Your task to perform on an android device: choose inbox layout in the gmail app Image 0: 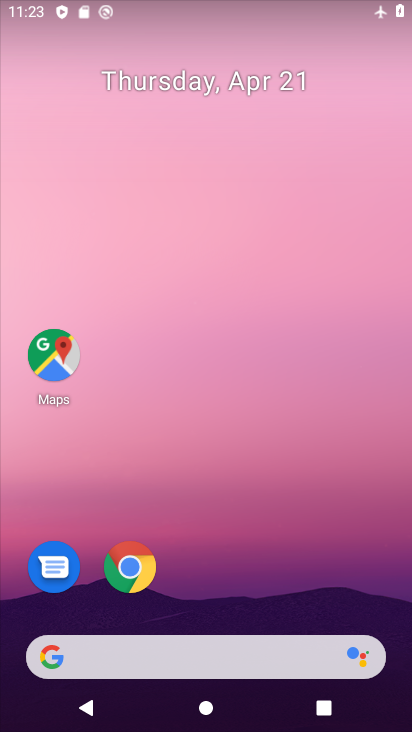
Step 0: drag from (385, 562) to (342, 144)
Your task to perform on an android device: choose inbox layout in the gmail app Image 1: 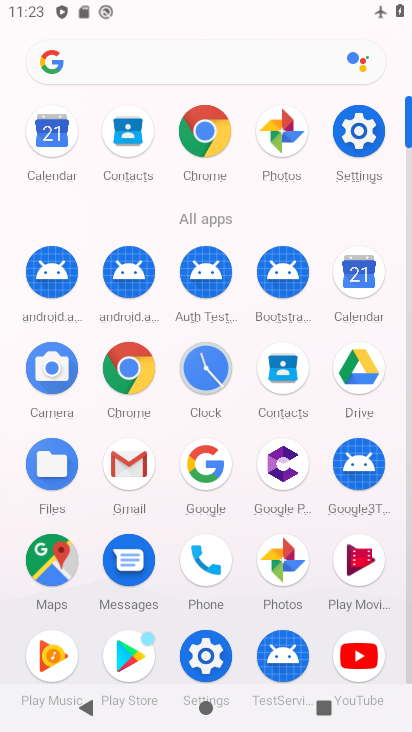
Step 1: click (131, 464)
Your task to perform on an android device: choose inbox layout in the gmail app Image 2: 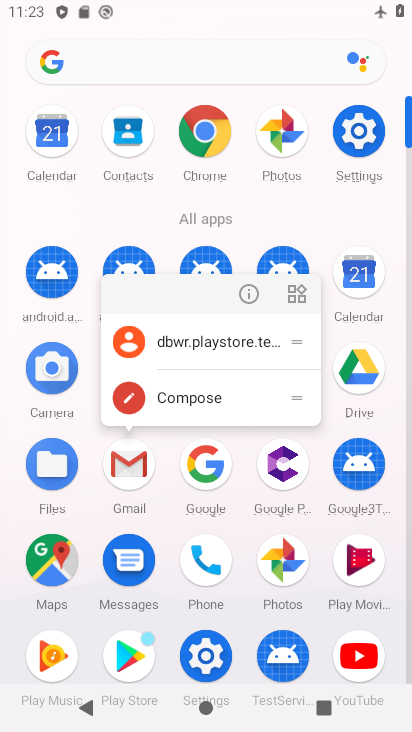
Step 2: click (134, 458)
Your task to perform on an android device: choose inbox layout in the gmail app Image 3: 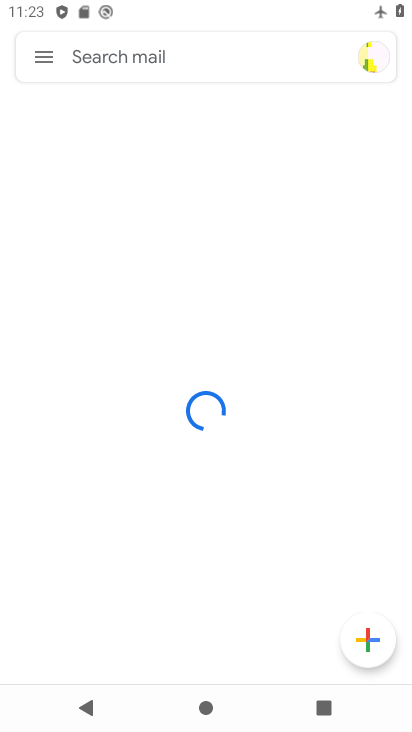
Step 3: click (52, 55)
Your task to perform on an android device: choose inbox layout in the gmail app Image 4: 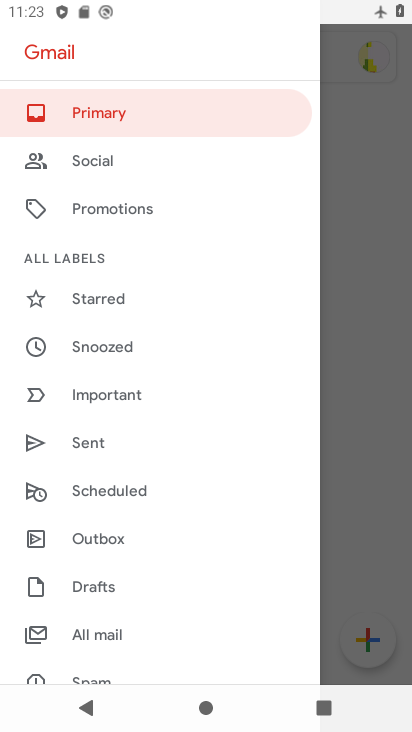
Step 4: drag from (167, 614) to (213, 118)
Your task to perform on an android device: choose inbox layout in the gmail app Image 5: 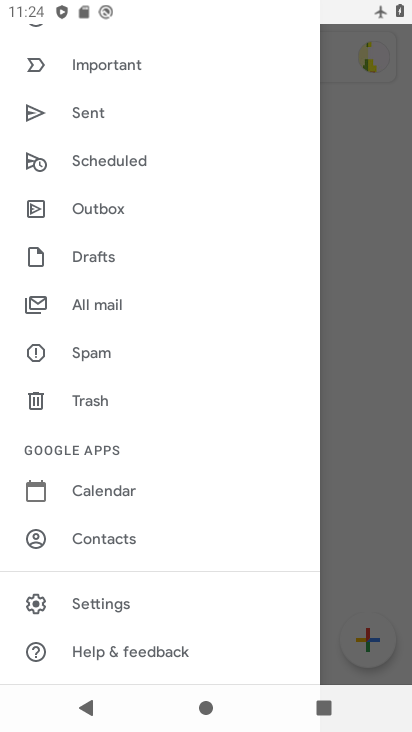
Step 5: click (134, 596)
Your task to perform on an android device: choose inbox layout in the gmail app Image 6: 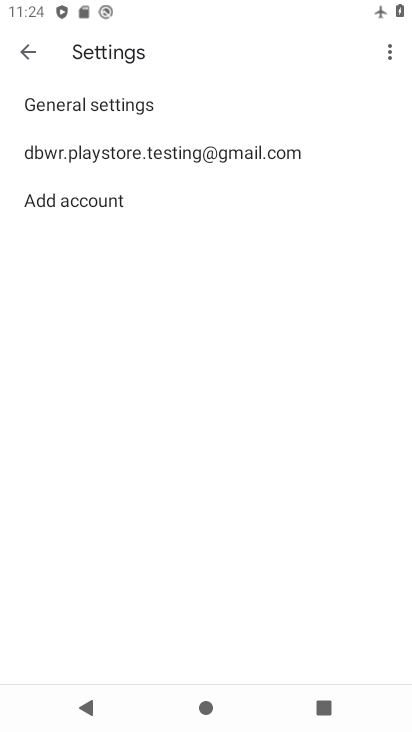
Step 6: click (210, 151)
Your task to perform on an android device: choose inbox layout in the gmail app Image 7: 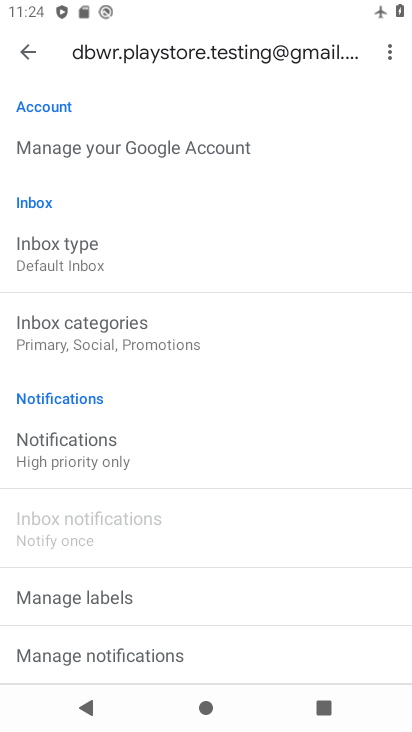
Step 7: click (79, 265)
Your task to perform on an android device: choose inbox layout in the gmail app Image 8: 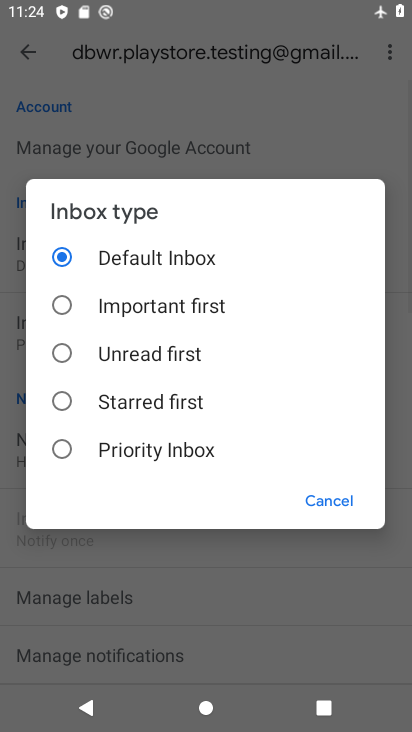
Step 8: click (101, 302)
Your task to perform on an android device: choose inbox layout in the gmail app Image 9: 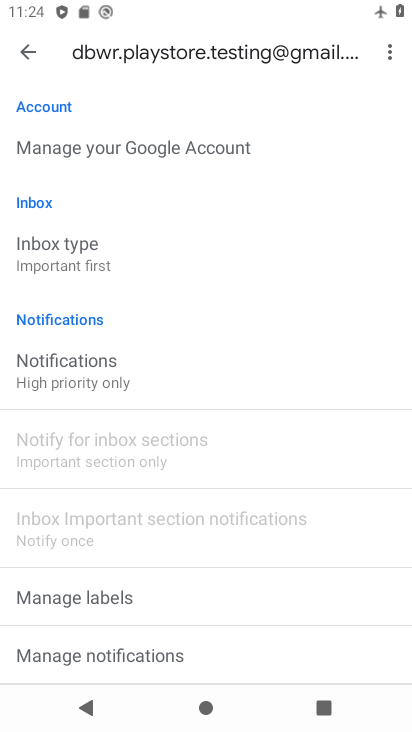
Step 9: task complete